Your task to perform on an android device: turn pop-ups off in chrome Image 0: 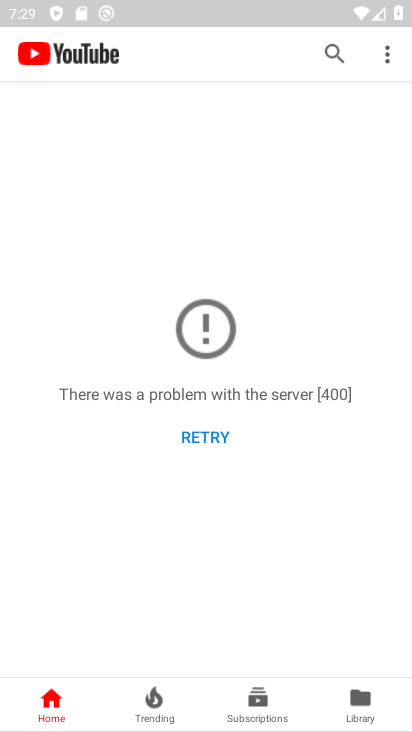
Step 0: task complete